Your task to perform on an android device: turn off priority inbox in the gmail app Image 0: 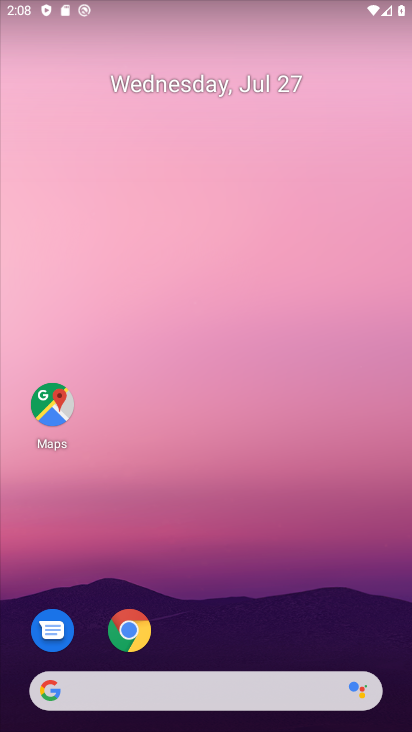
Step 0: drag from (293, 607) to (252, 145)
Your task to perform on an android device: turn off priority inbox in the gmail app Image 1: 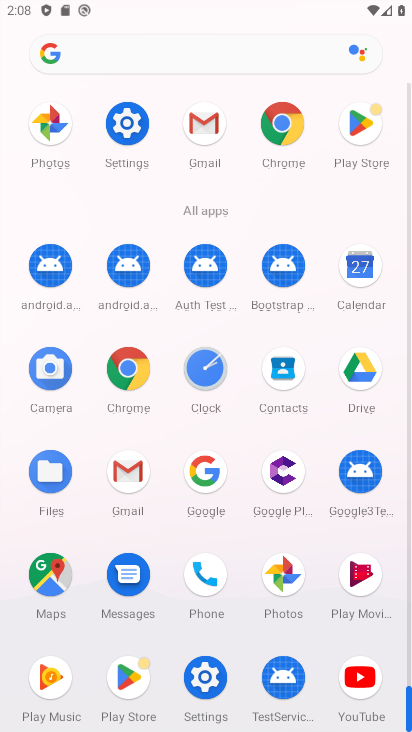
Step 1: click (123, 474)
Your task to perform on an android device: turn off priority inbox in the gmail app Image 2: 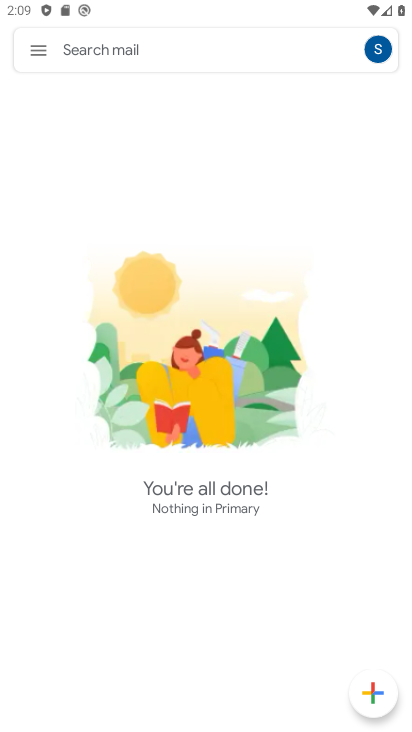
Step 2: click (38, 53)
Your task to perform on an android device: turn off priority inbox in the gmail app Image 3: 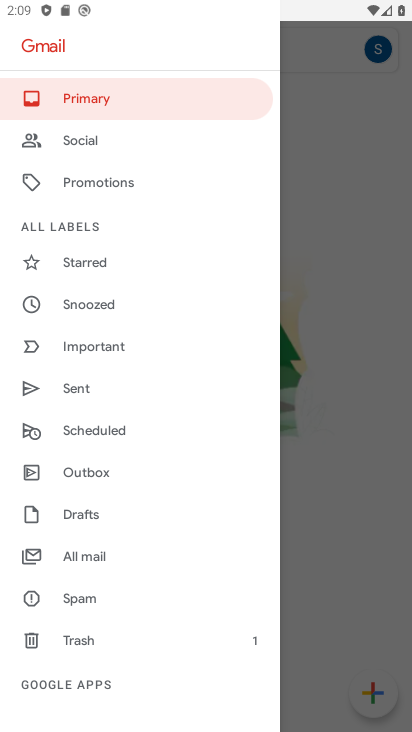
Step 3: drag from (188, 658) to (151, 336)
Your task to perform on an android device: turn off priority inbox in the gmail app Image 4: 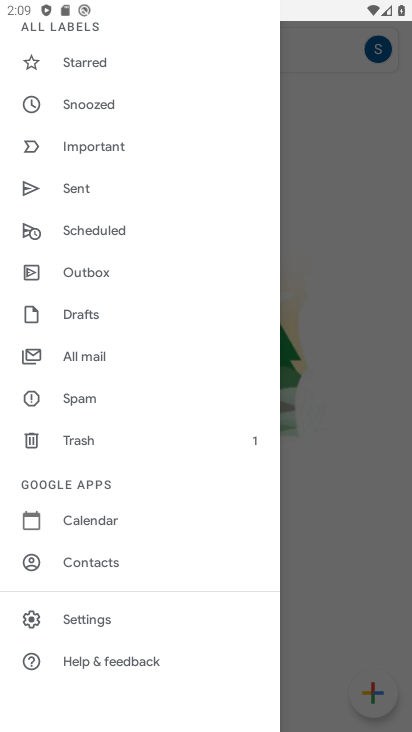
Step 4: click (116, 617)
Your task to perform on an android device: turn off priority inbox in the gmail app Image 5: 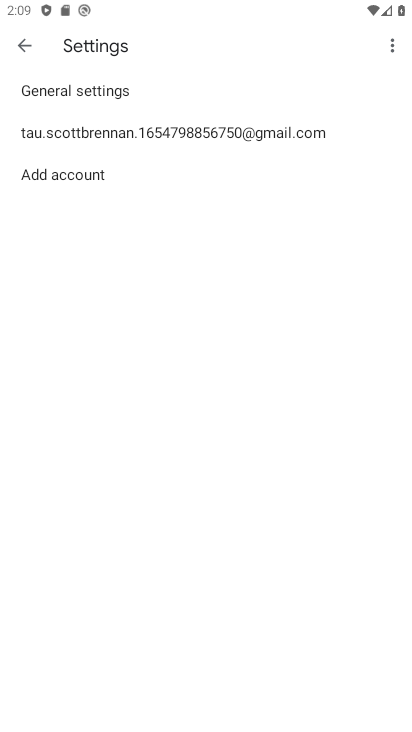
Step 5: click (107, 123)
Your task to perform on an android device: turn off priority inbox in the gmail app Image 6: 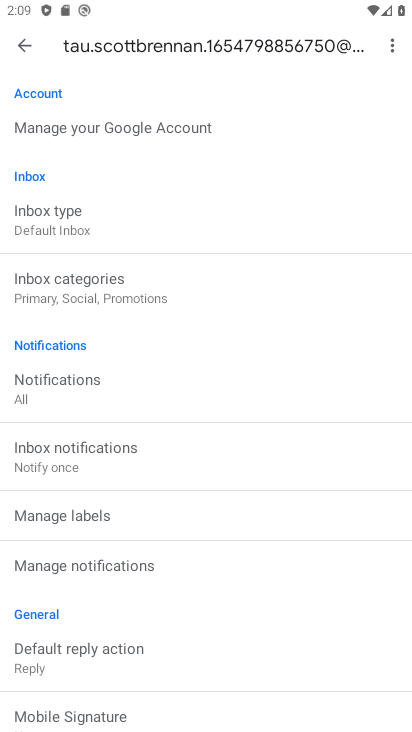
Step 6: click (71, 228)
Your task to perform on an android device: turn off priority inbox in the gmail app Image 7: 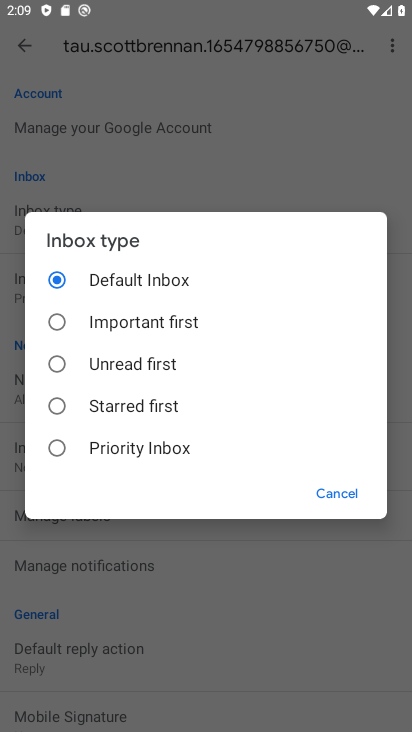
Step 7: task complete